Your task to perform on an android device: Do I have any events today? Image 0: 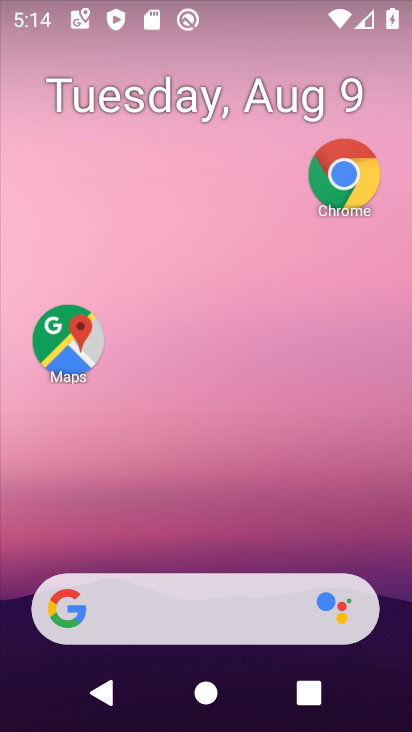
Step 0: drag from (233, 554) to (257, 210)
Your task to perform on an android device: Do I have any events today? Image 1: 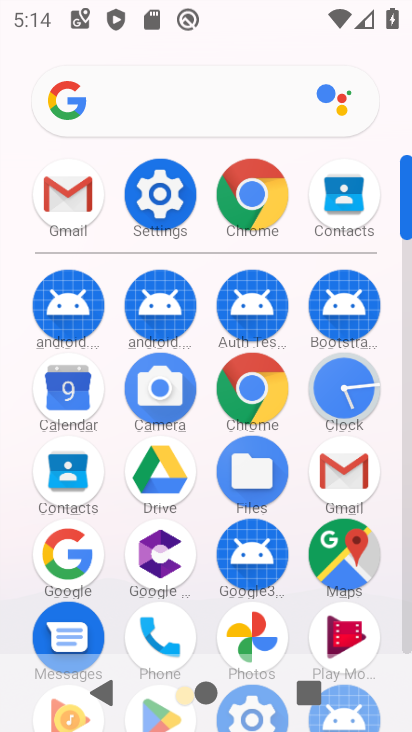
Step 1: click (65, 386)
Your task to perform on an android device: Do I have any events today? Image 2: 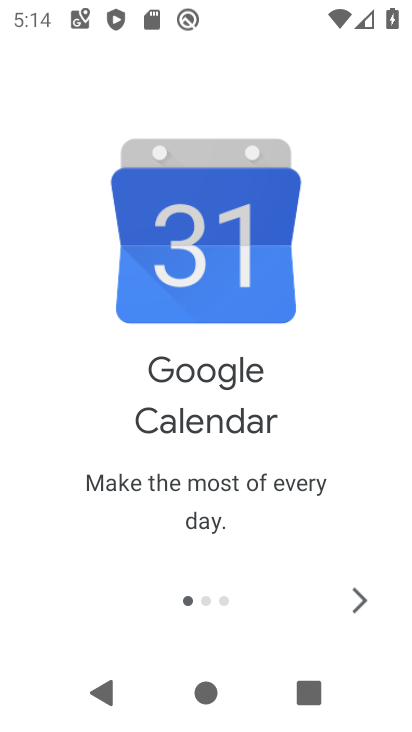
Step 2: click (357, 580)
Your task to perform on an android device: Do I have any events today? Image 3: 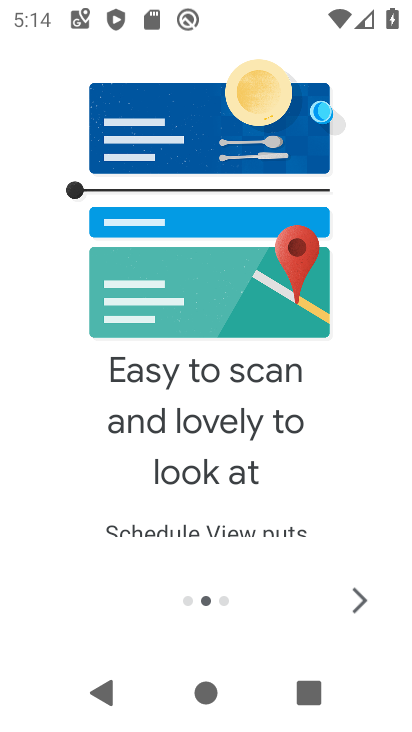
Step 3: click (357, 580)
Your task to perform on an android device: Do I have any events today? Image 4: 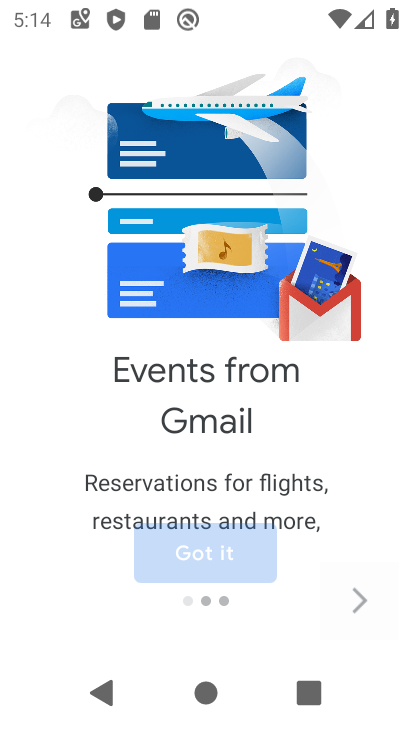
Step 4: click (357, 580)
Your task to perform on an android device: Do I have any events today? Image 5: 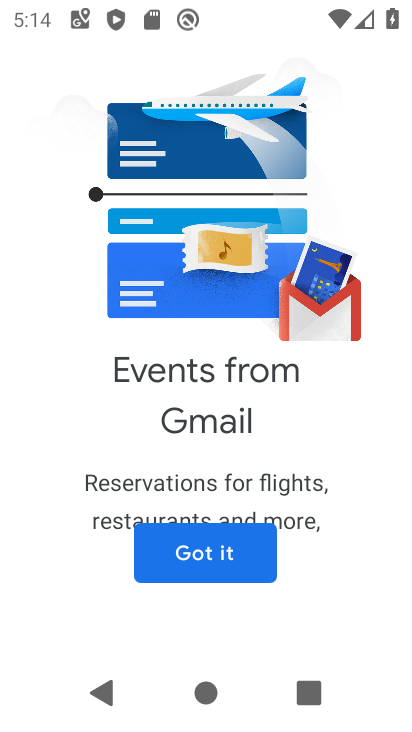
Step 5: click (241, 520)
Your task to perform on an android device: Do I have any events today? Image 6: 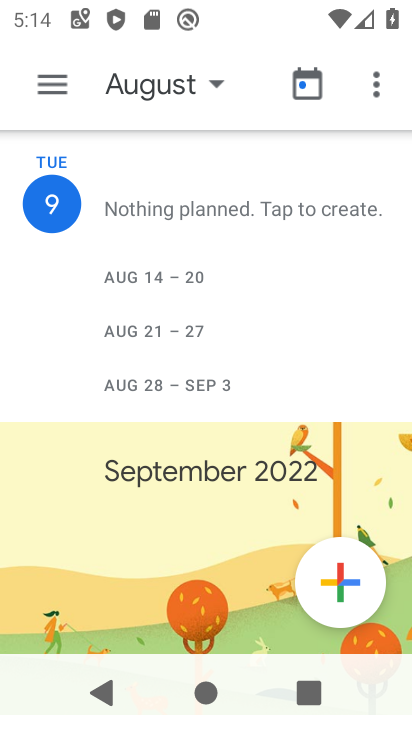
Step 6: click (315, 63)
Your task to perform on an android device: Do I have any events today? Image 7: 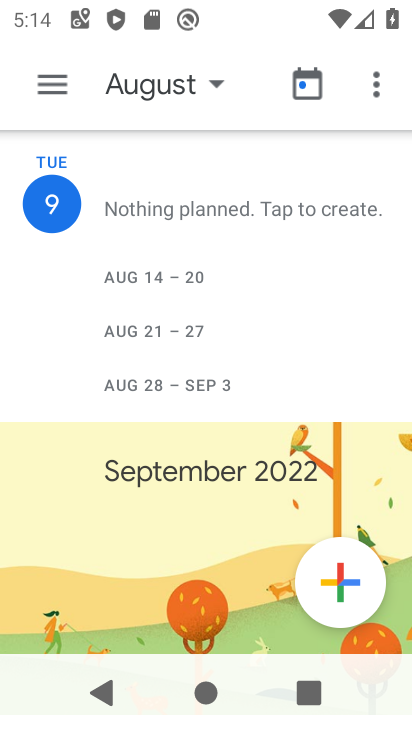
Step 7: click (143, 83)
Your task to perform on an android device: Do I have any events today? Image 8: 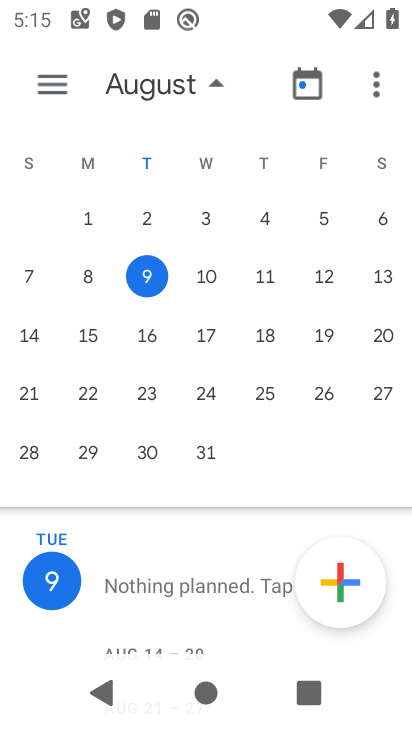
Step 8: click (309, 81)
Your task to perform on an android device: Do I have any events today? Image 9: 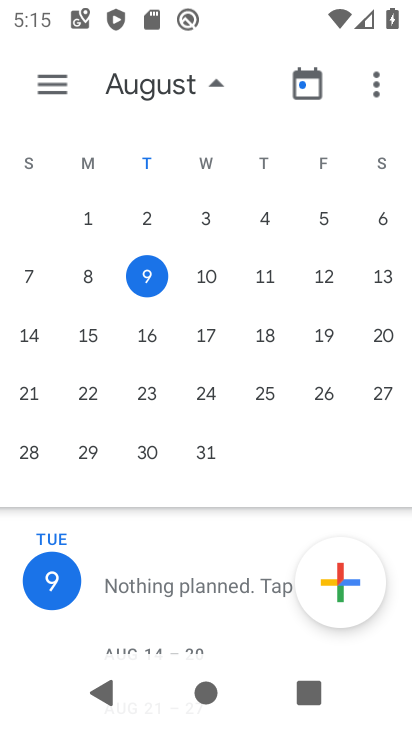
Step 9: task complete